Your task to perform on an android device: change notification settings in the gmail app Image 0: 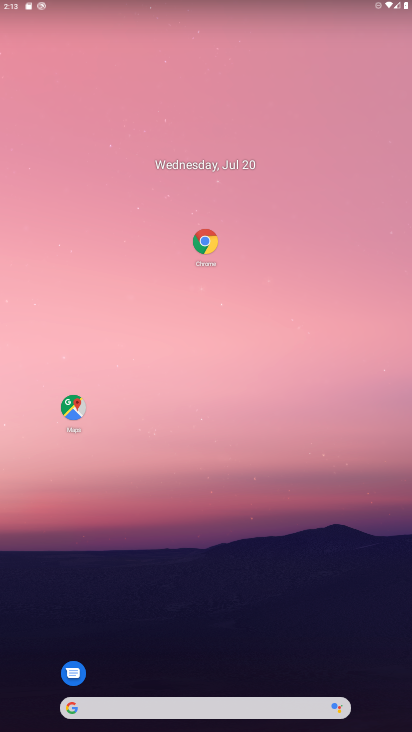
Step 0: drag from (242, 356) to (248, 151)
Your task to perform on an android device: change notification settings in the gmail app Image 1: 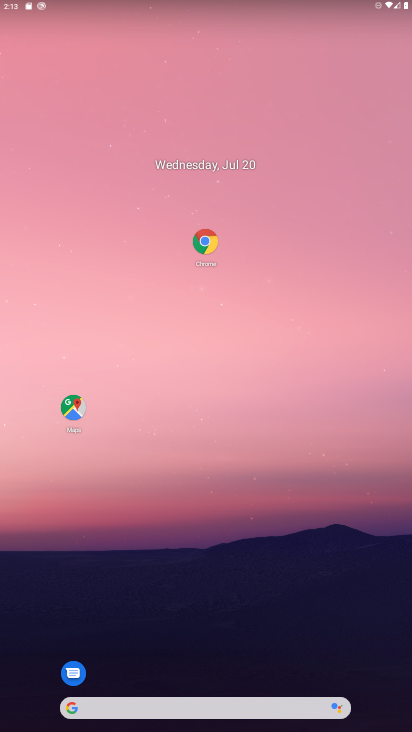
Step 1: drag from (206, 648) to (224, 77)
Your task to perform on an android device: change notification settings in the gmail app Image 2: 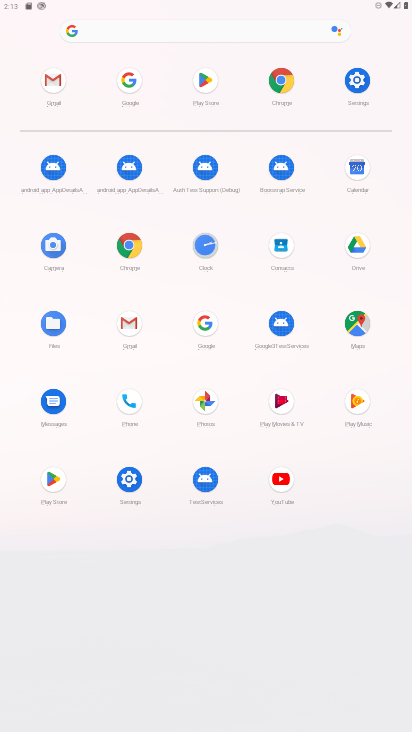
Step 2: click (56, 82)
Your task to perform on an android device: change notification settings in the gmail app Image 3: 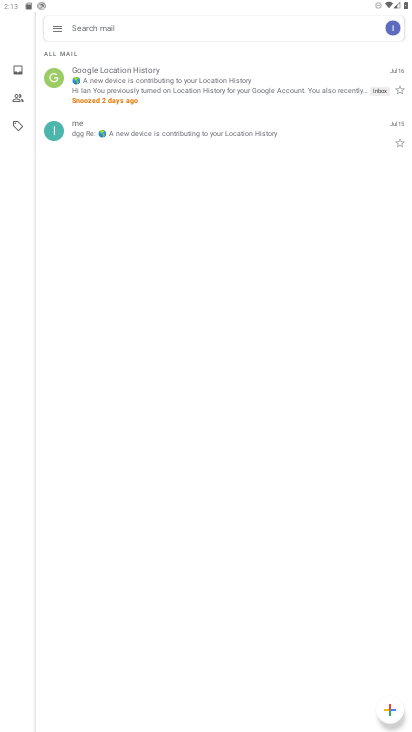
Step 3: click (55, 30)
Your task to perform on an android device: change notification settings in the gmail app Image 4: 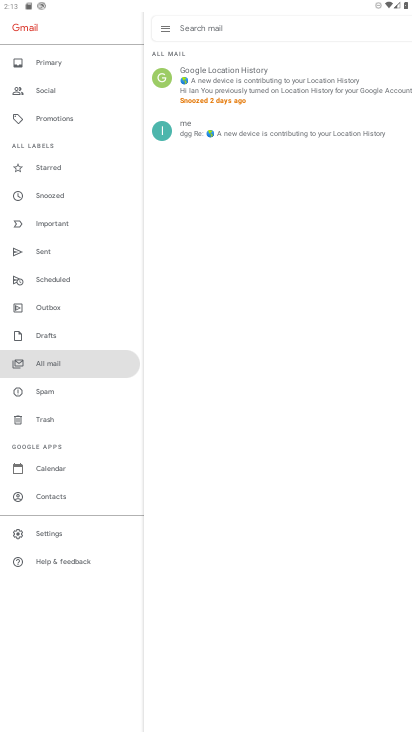
Step 4: click (43, 531)
Your task to perform on an android device: change notification settings in the gmail app Image 5: 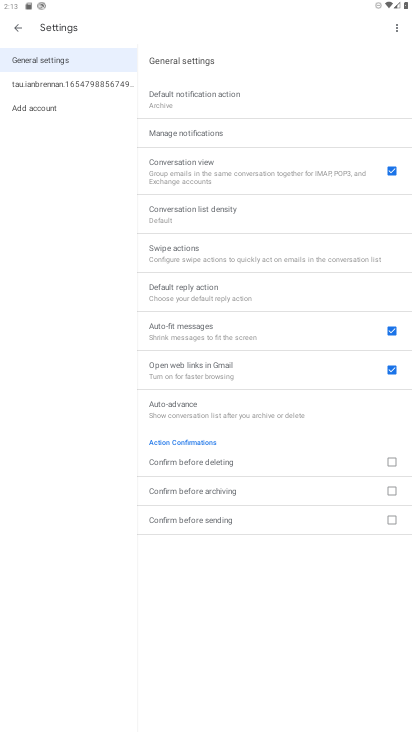
Step 5: click (72, 79)
Your task to perform on an android device: change notification settings in the gmail app Image 6: 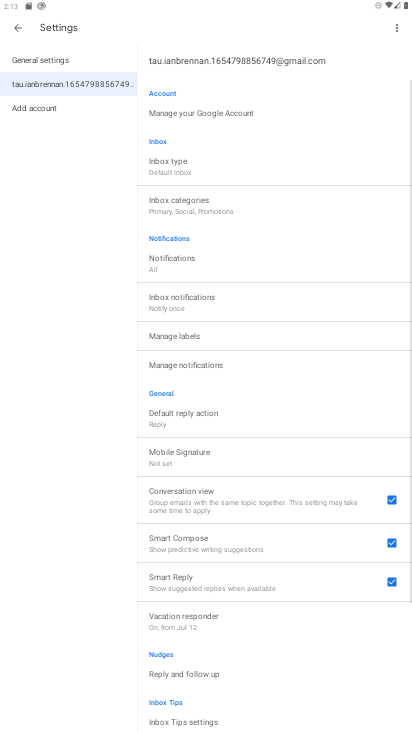
Step 6: click (172, 270)
Your task to perform on an android device: change notification settings in the gmail app Image 7: 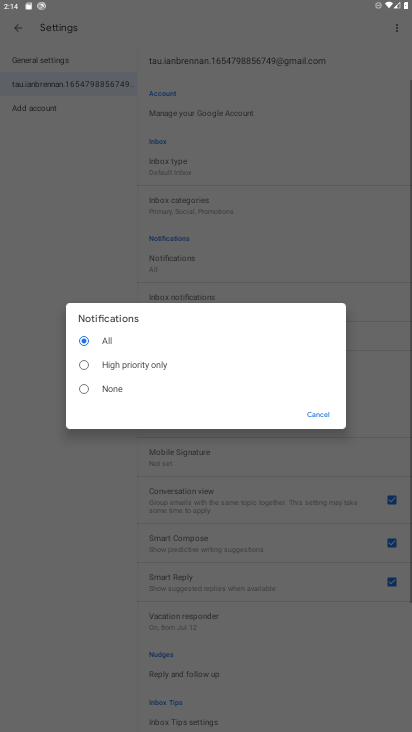
Step 7: click (84, 390)
Your task to perform on an android device: change notification settings in the gmail app Image 8: 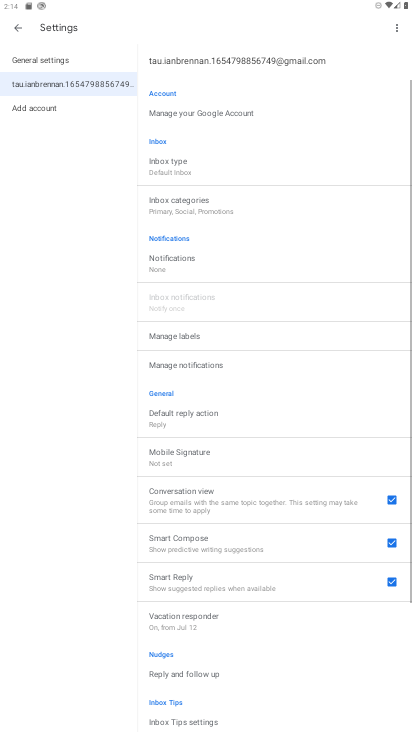
Step 8: task complete